Your task to perform on an android device: Do I have any events today? Image 0: 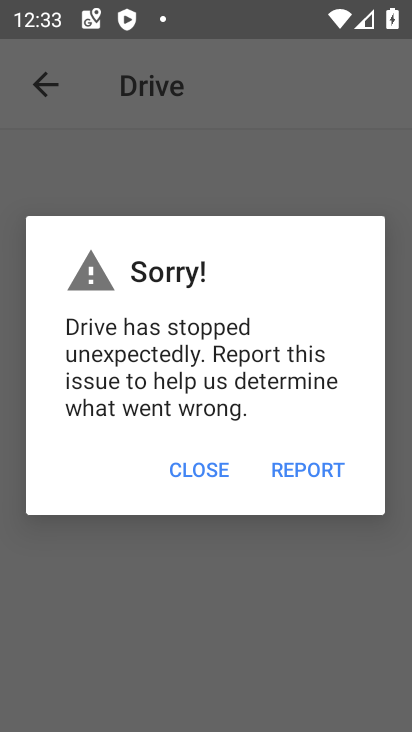
Step 0: press home button
Your task to perform on an android device: Do I have any events today? Image 1: 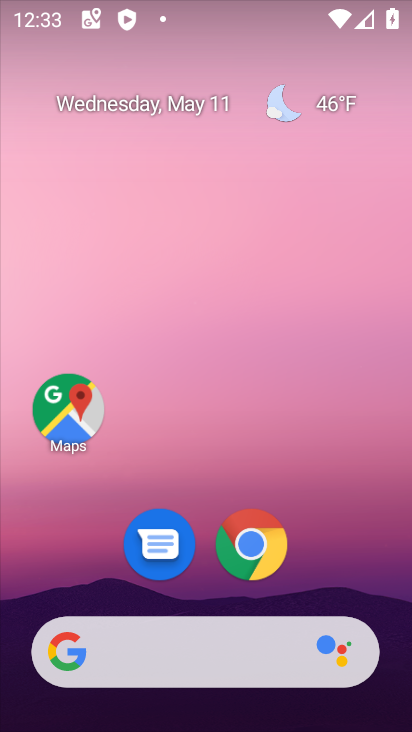
Step 1: drag from (383, 628) to (332, 218)
Your task to perform on an android device: Do I have any events today? Image 2: 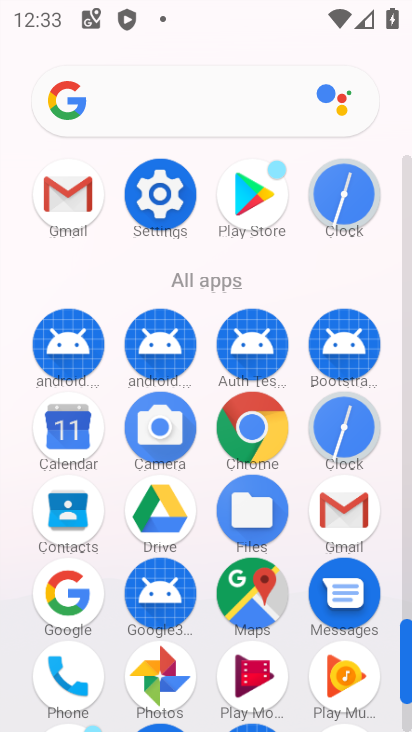
Step 2: drag from (405, 599) to (406, 497)
Your task to perform on an android device: Do I have any events today? Image 3: 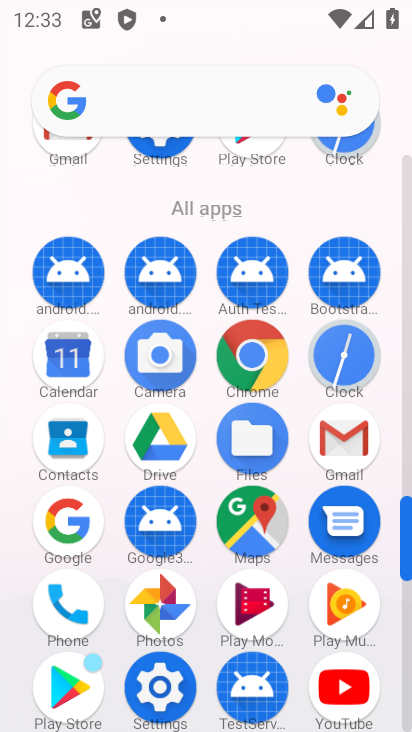
Step 3: click (68, 352)
Your task to perform on an android device: Do I have any events today? Image 4: 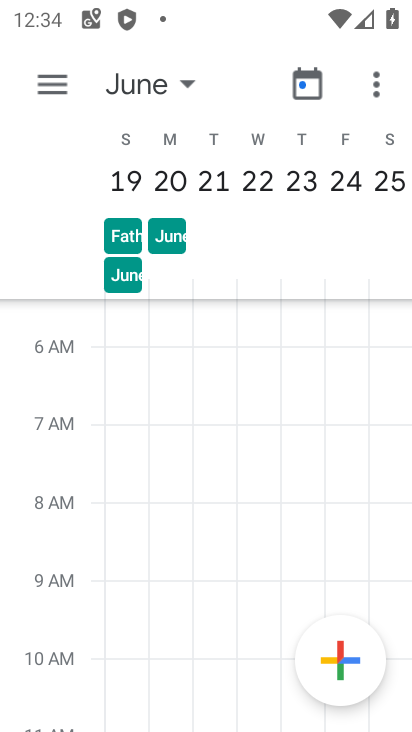
Step 4: click (49, 89)
Your task to perform on an android device: Do I have any events today? Image 5: 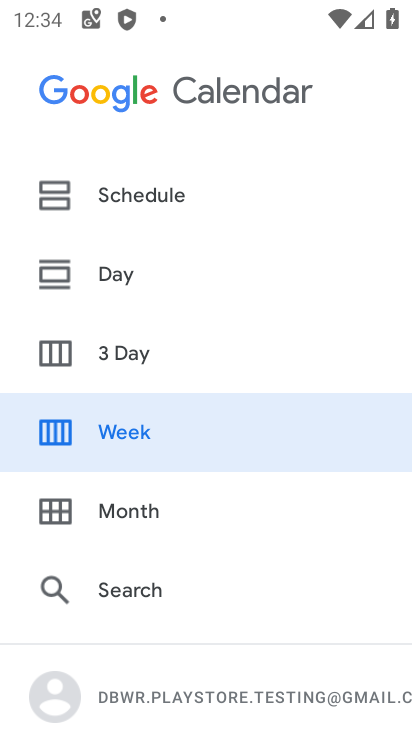
Step 5: click (107, 263)
Your task to perform on an android device: Do I have any events today? Image 6: 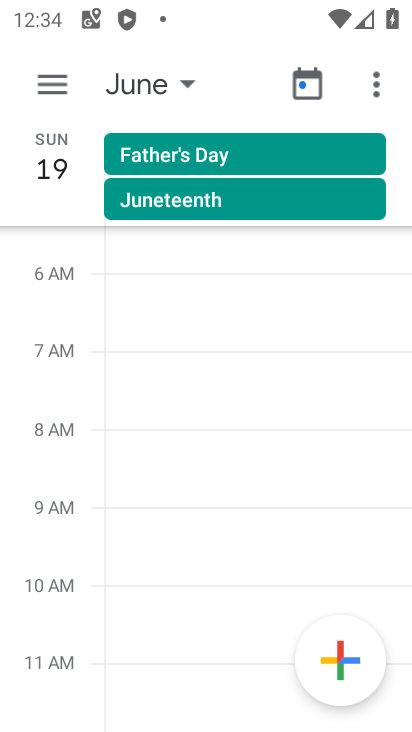
Step 6: click (183, 81)
Your task to perform on an android device: Do I have any events today? Image 7: 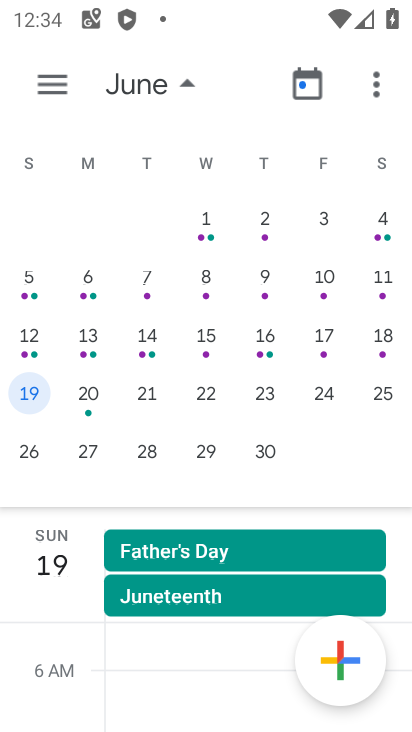
Step 7: drag from (28, 250) to (385, 267)
Your task to perform on an android device: Do I have any events today? Image 8: 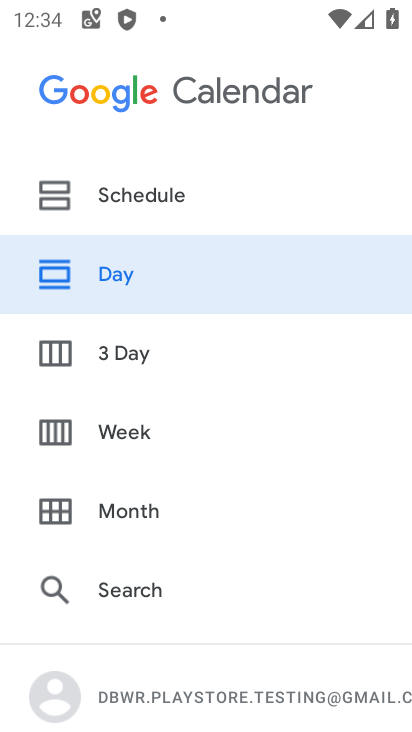
Step 8: click (86, 268)
Your task to perform on an android device: Do I have any events today? Image 9: 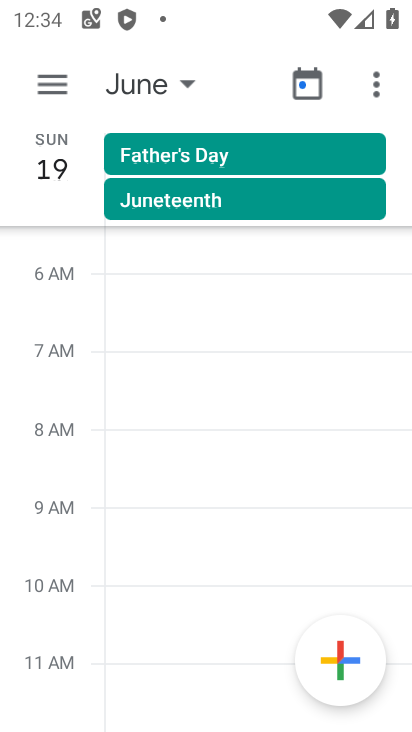
Step 9: click (180, 85)
Your task to perform on an android device: Do I have any events today? Image 10: 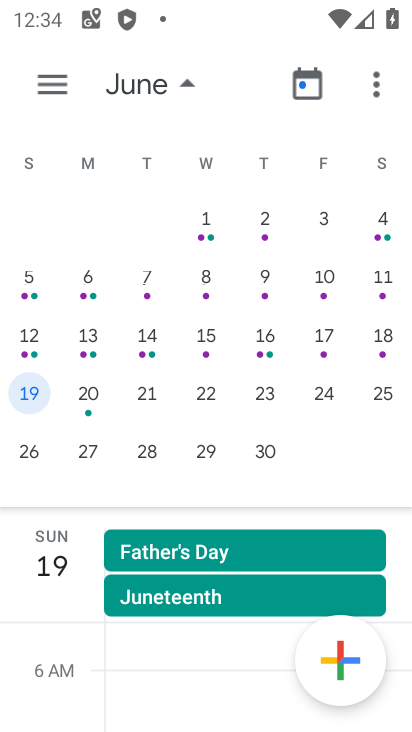
Step 10: drag from (65, 318) to (319, 300)
Your task to perform on an android device: Do I have any events today? Image 11: 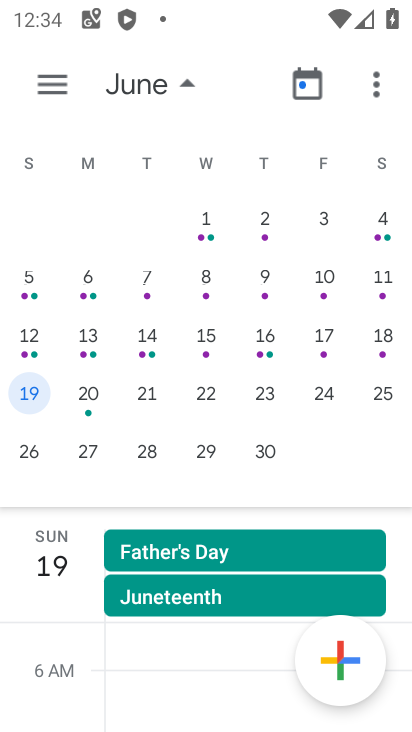
Step 11: drag from (75, 319) to (355, 342)
Your task to perform on an android device: Do I have any events today? Image 12: 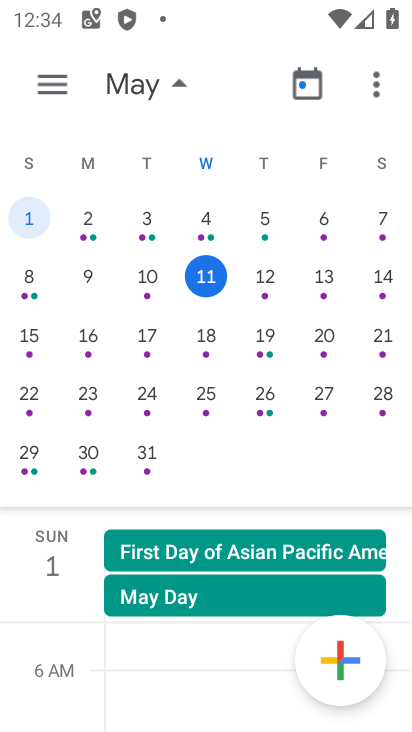
Step 12: click (192, 275)
Your task to perform on an android device: Do I have any events today? Image 13: 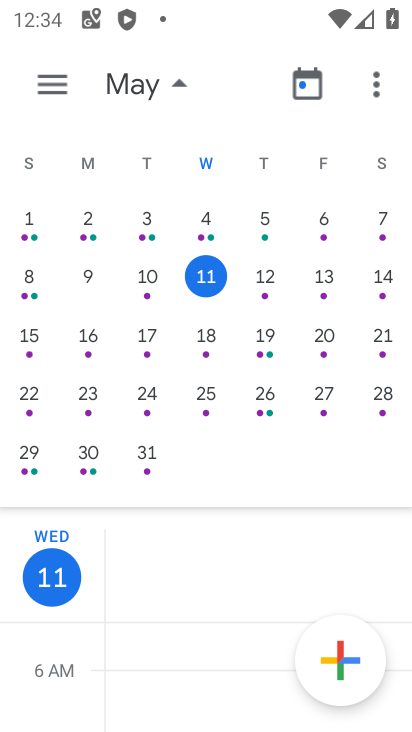
Step 13: task complete